Your task to perform on an android device: Set the phone to "Do not disturb". Image 0: 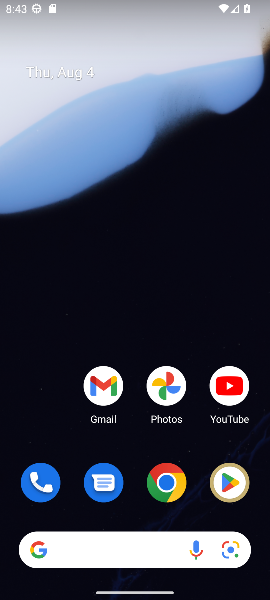
Step 0: press home button
Your task to perform on an android device: Set the phone to "Do not disturb". Image 1: 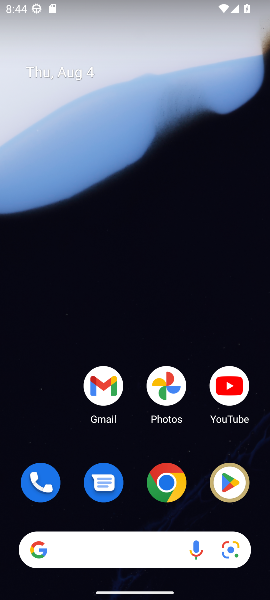
Step 1: drag from (118, 5) to (131, 478)
Your task to perform on an android device: Set the phone to "Do not disturb". Image 2: 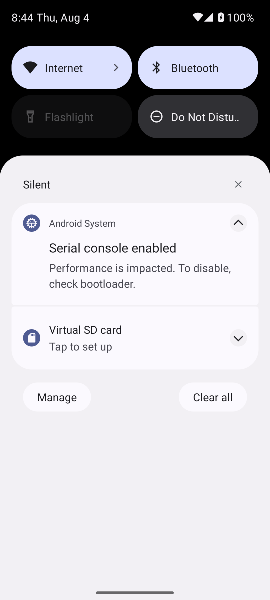
Step 2: click (207, 121)
Your task to perform on an android device: Set the phone to "Do not disturb". Image 3: 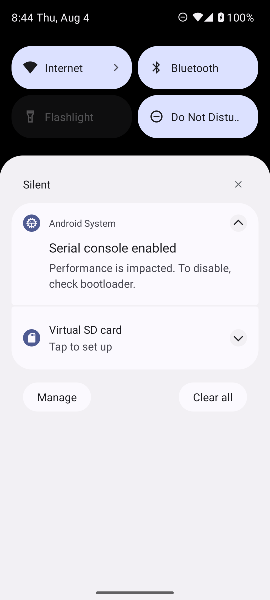
Step 3: task complete